Your task to perform on an android device: Open settings Image 0: 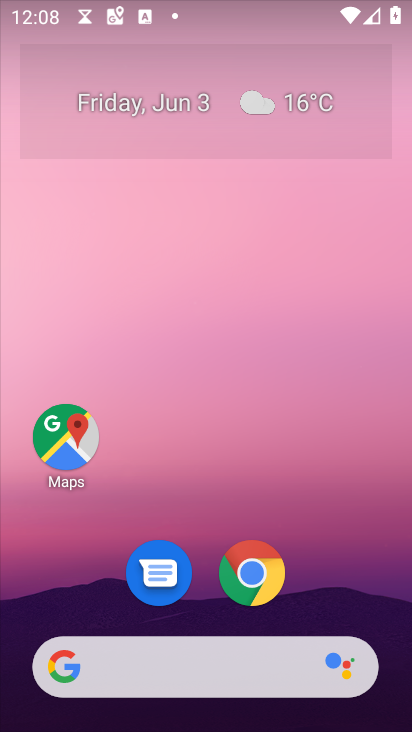
Step 0: drag from (312, 302) to (276, 7)
Your task to perform on an android device: Open settings Image 1: 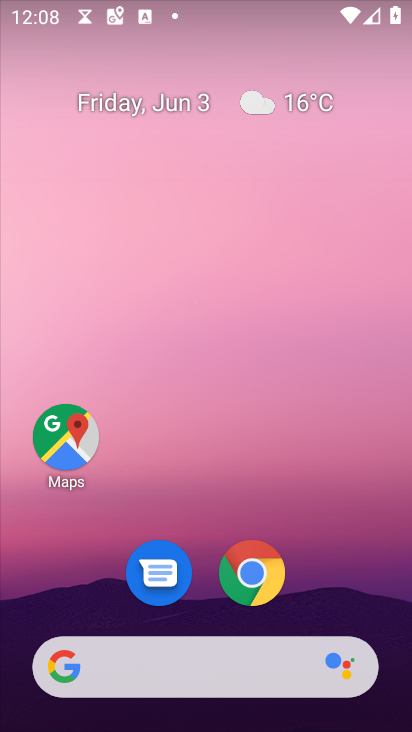
Step 1: drag from (348, 525) to (319, 50)
Your task to perform on an android device: Open settings Image 2: 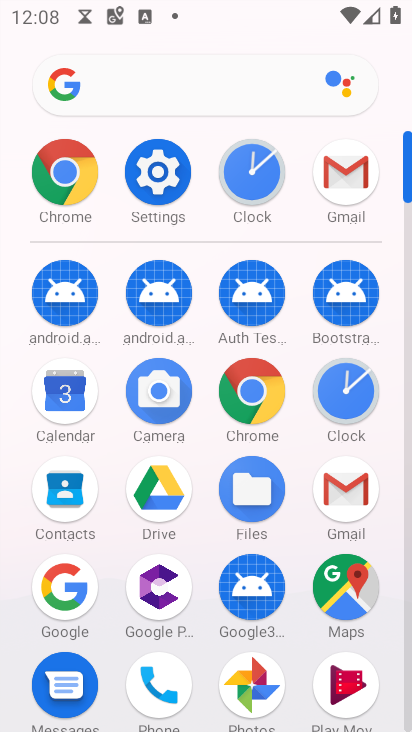
Step 2: click (163, 181)
Your task to perform on an android device: Open settings Image 3: 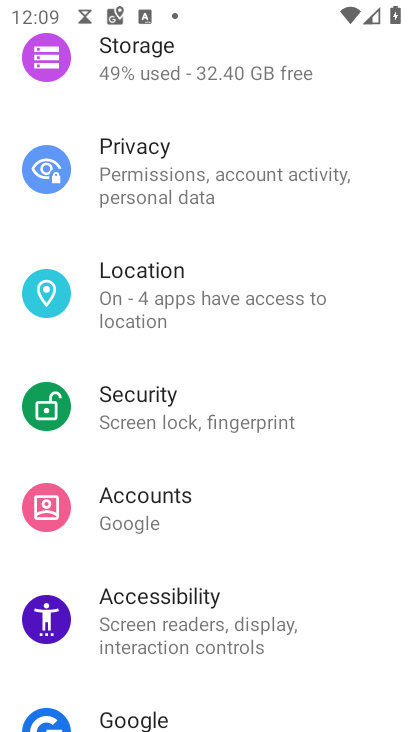
Step 3: task complete